Your task to perform on an android device: Open the stopwatch Image 0: 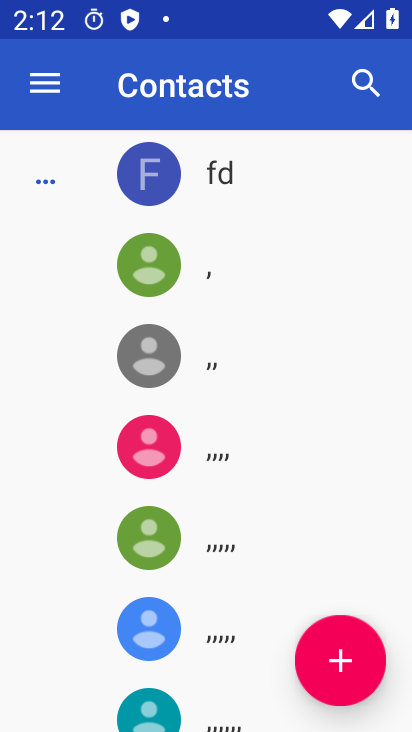
Step 0: press home button
Your task to perform on an android device: Open the stopwatch Image 1: 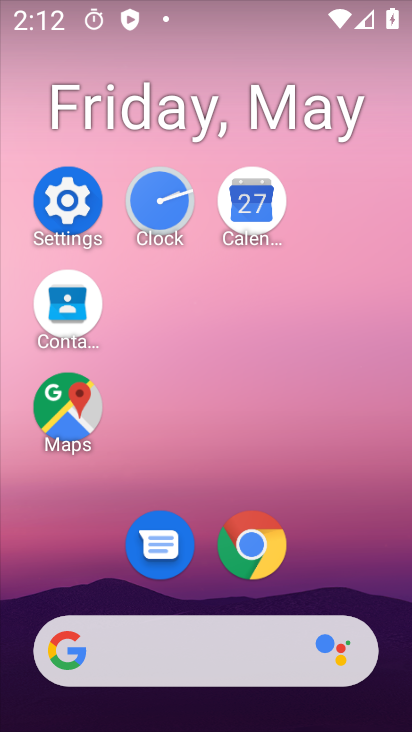
Step 1: click (182, 208)
Your task to perform on an android device: Open the stopwatch Image 2: 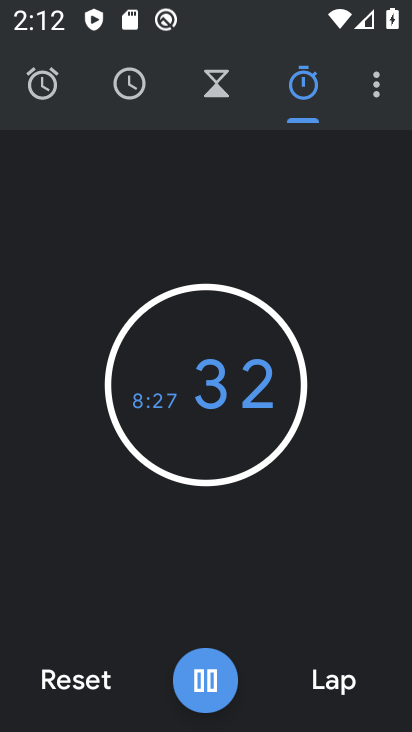
Step 2: task complete